Your task to perform on an android device: turn on javascript in the chrome app Image 0: 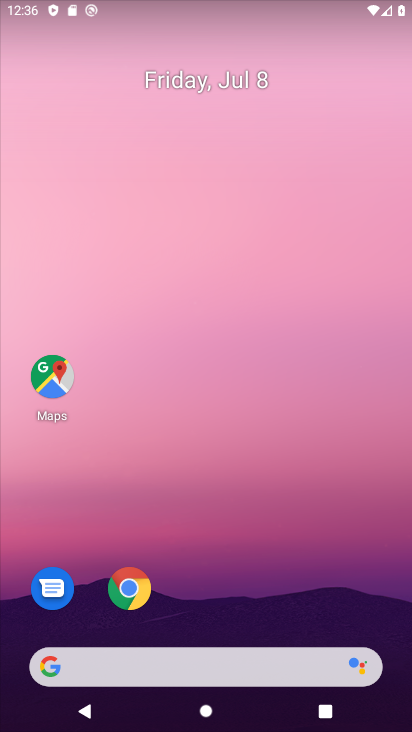
Step 0: drag from (245, 626) to (224, 12)
Your task to perform on an android device: turn on javascript in the chrome app Image 1: 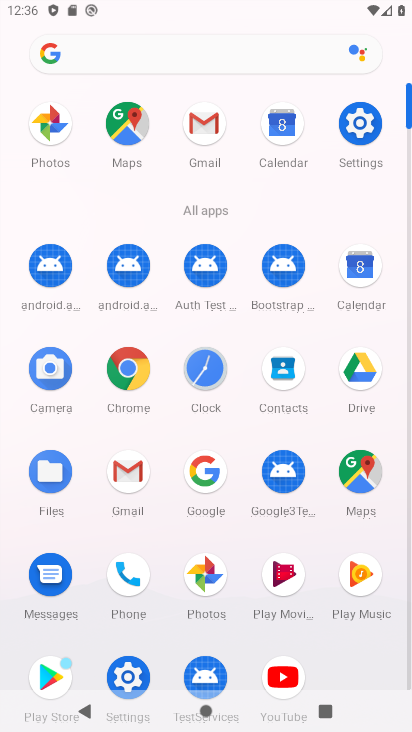
Step 1: click (143, 382)
Your task to perform on an android device: turn on javascript in the chrome app Image 2: 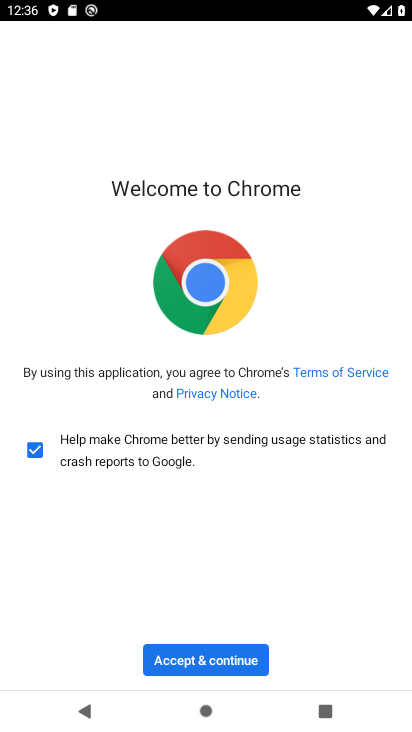
Step 2: click (210, 669)
Your task to perform on an android device: turn on javascript in the chrome app Image 3: 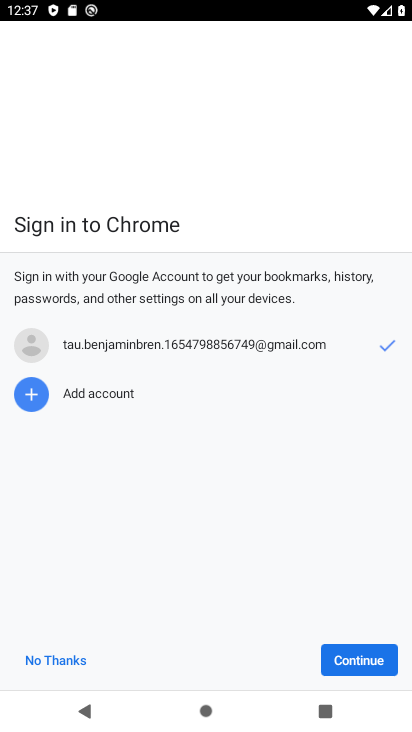
Step 3: click (375, 654)
Your task to perform on an android device: turn on javascript in the chrome app Image 4: 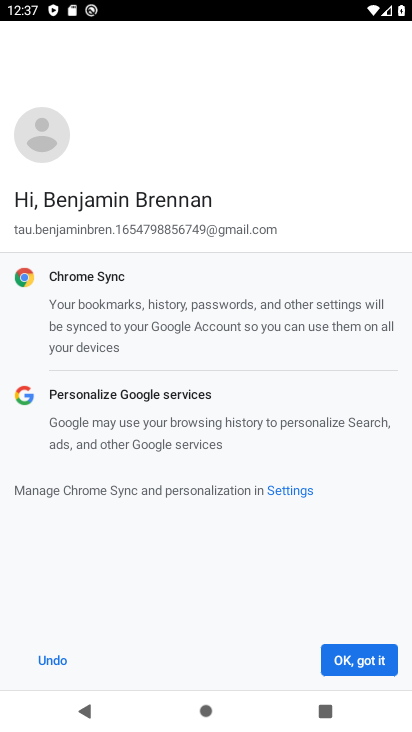
Step 4: click (350, 662)
Your task to perform on an android device: turn on javascript in the chrome app Image 5: 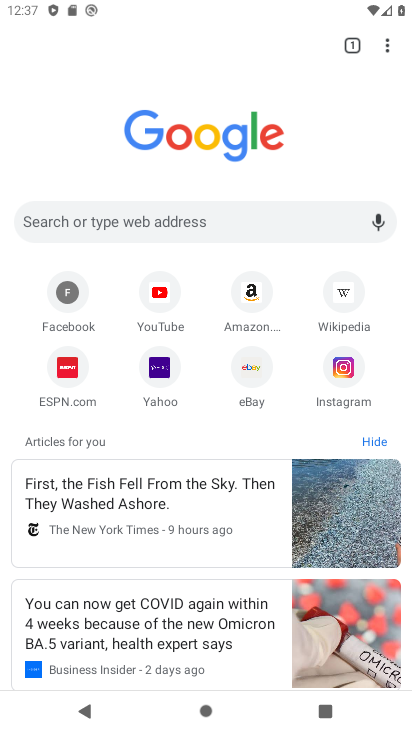
Step 5: click (388, 42)
Your task to perform on an android device: turn on javascript in the chrome app Image 6: 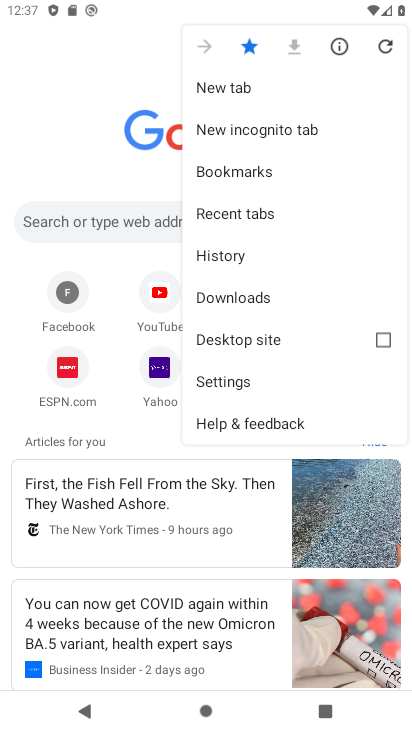
Step 6: click (230, 376)
Your task to perform on an android device: turn on javascript in the chrome app Image 7: 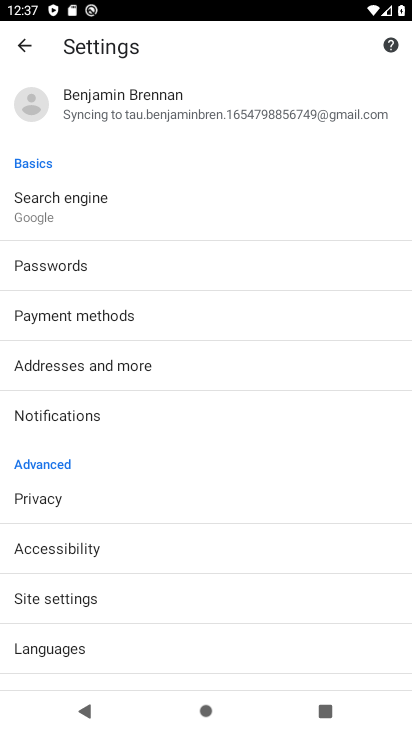
Step 7: click (85, 597)
Your task to perform on an android device: turn on javascript in the chrome app Image 8: 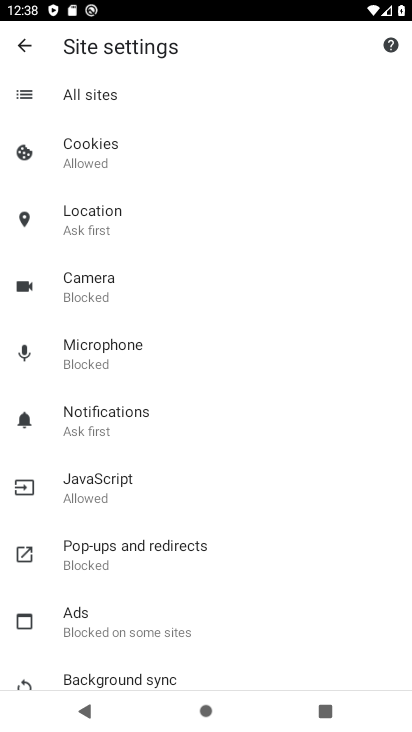
Step 8: click (107, 494)
Your task to perform on an android device: turn on javascript in the chrome app Image 9: 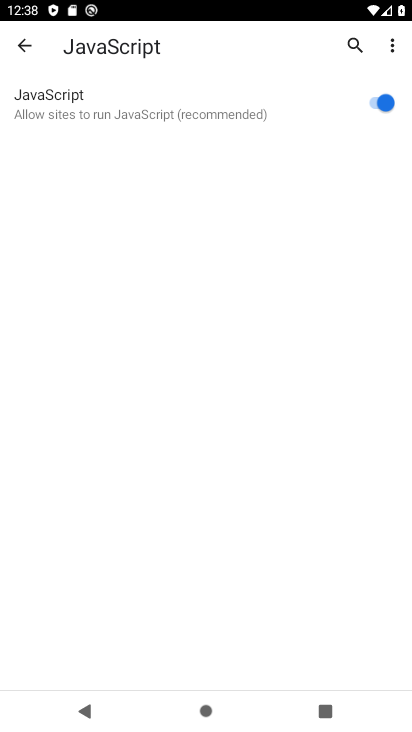
Step 9: task complete